Your task to perform on an android device: Go to Wikipedia Image 0: 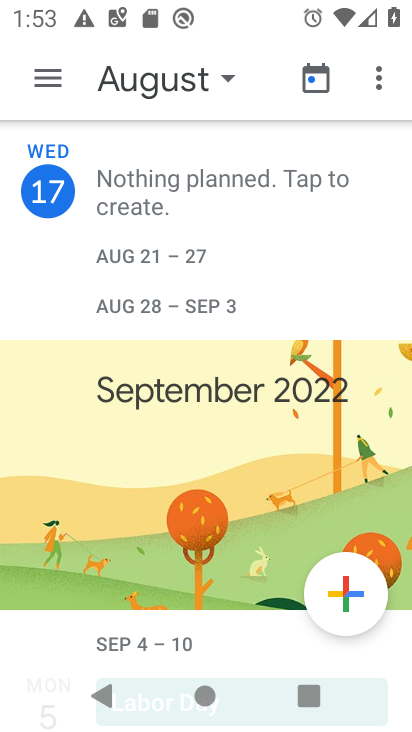
Step 0: press back button
Your task to perform on an android device: Go to Wikipedia Image 1: 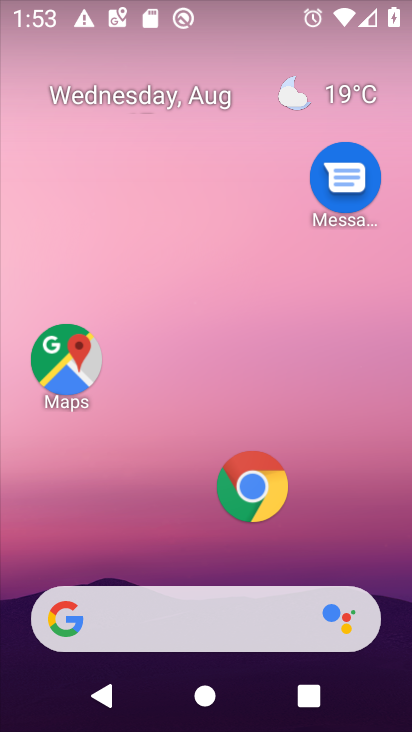
Step 1: click (269, 459)
Your task to perform on an android device: Go to Wikipedia Image 2: 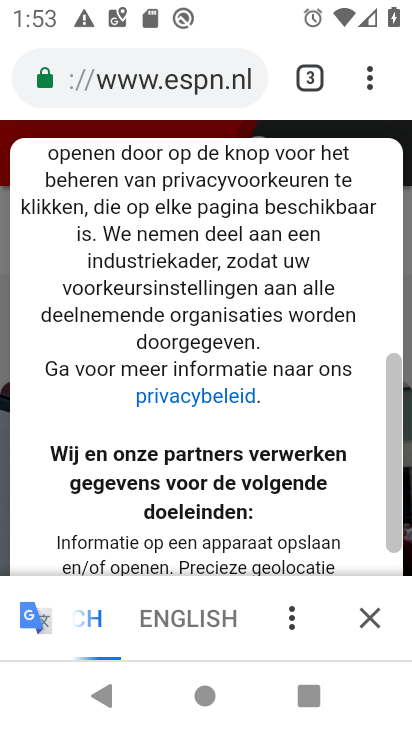
Step 2: click (318, 73)
Your task to perform on an android device: Go to Wikipedia Image 3: 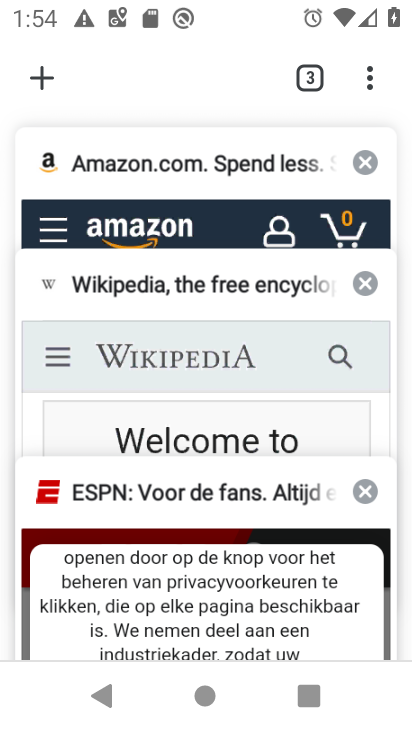
Step 3: click (181, 317)
Your task to perform on an android device: Go to Wikipedia Image 4: 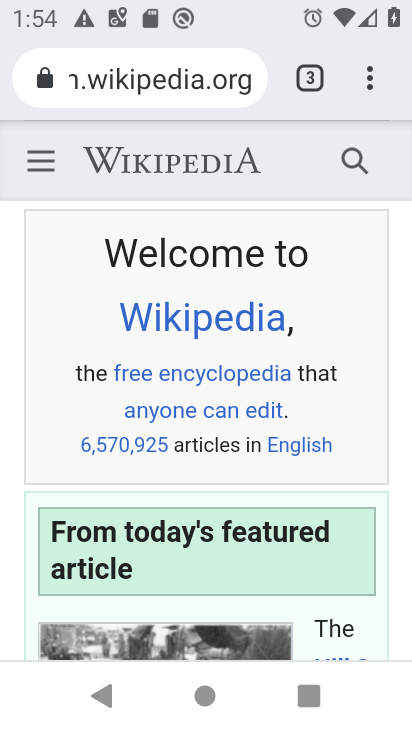
Step 4: task complete